Your task to perform on an android device: When is my next meeting? Image 0: 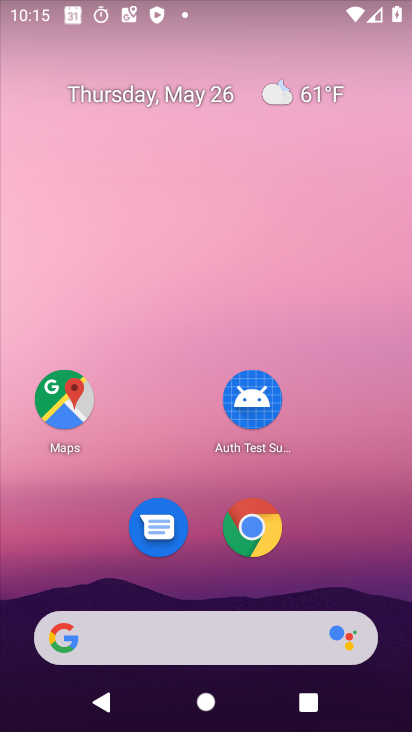
Step 0: drag from (339, 461) to (406, 389)
Your task to perform on an android device: When is my next meeting? Image 1: 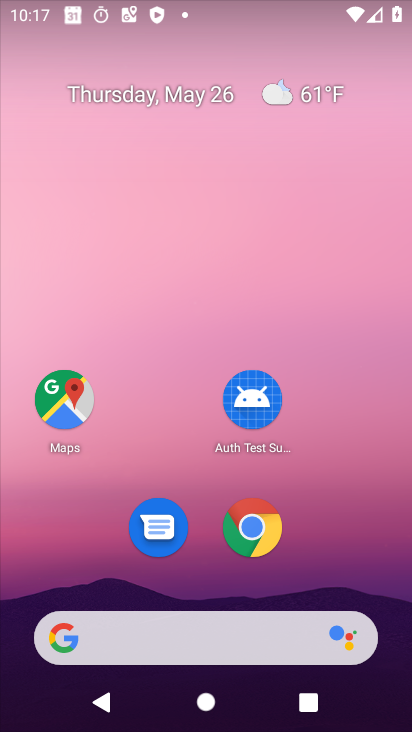
Step 1: drag from (357, 526) to (338, 17)
Your task to perform on an android device: When is my next meeting? Image 2: 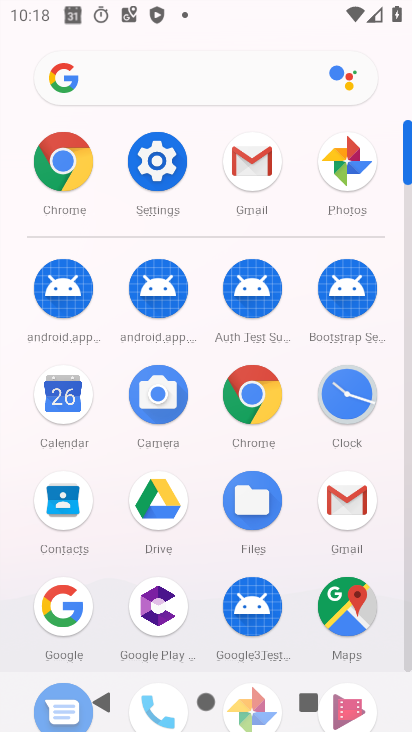
Step 2: click (81, 407)
Your task to perform on an android device: When is my next meeting? Image 3: 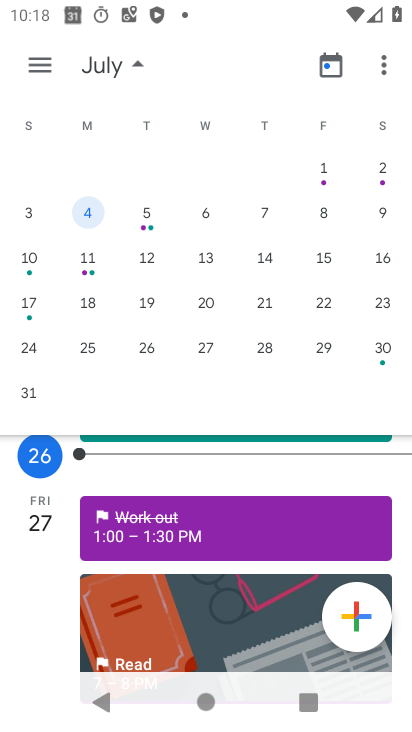
Step 3: click (146, 218)
Your task to perform on an android device: When is my next meeting? Image 4: 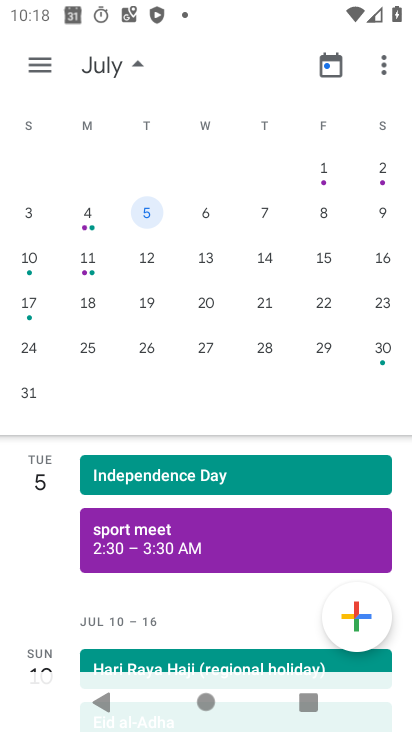
Step 4: task complete